Your task to perform on an android device: Open Google Chrome and open the bookmarks view Image 0: 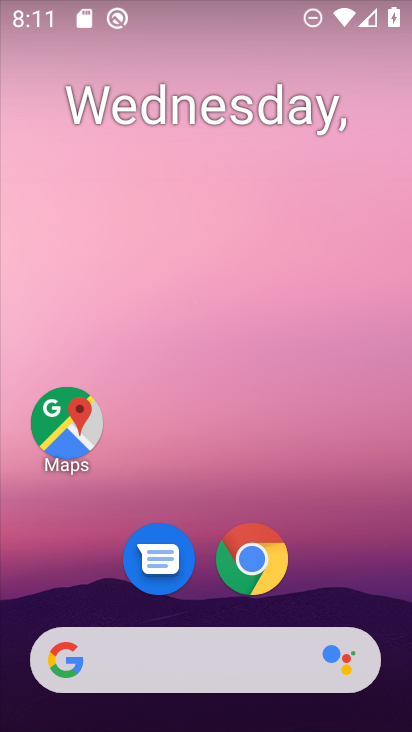
Step 0: click (243, 585)
Your task to perform on an android device: Open Google Chrome and open the bookmarks view Image 1: 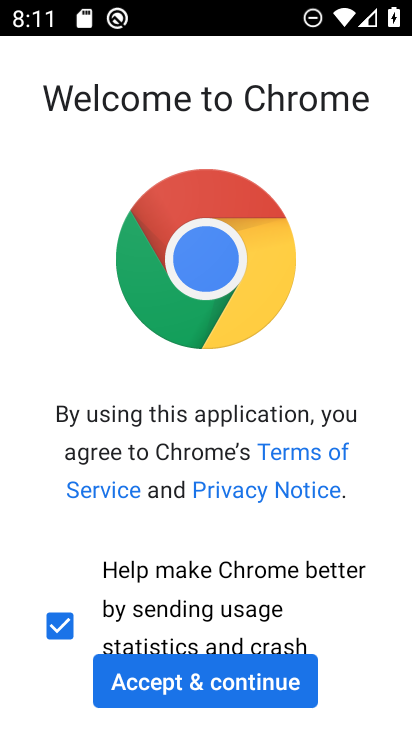
Step 1: click (254, 673)
Your task to perform on an android device: Open Google Chrome and open the bookmarks view Image 2: 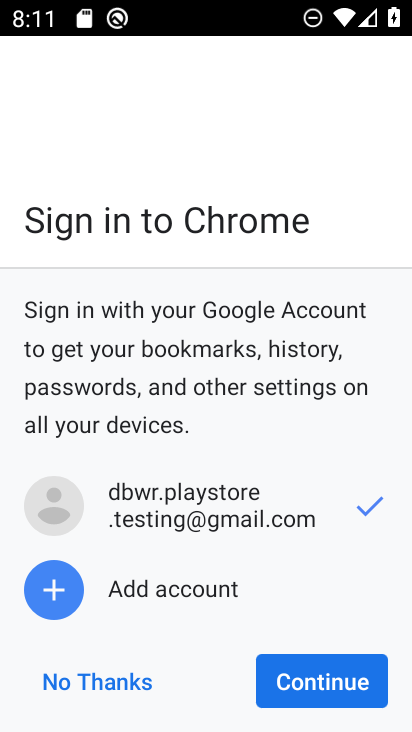
Step 2: click (322, 689)
Your task to perform on an android device: Open Google Chrome and open the bookmarks view Image 3: 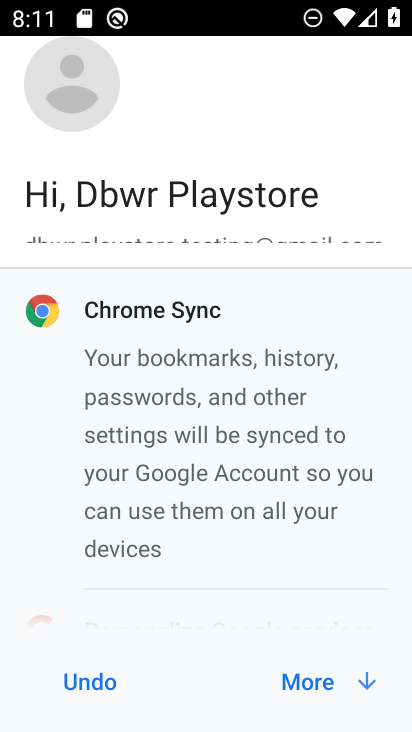
Step 3: click (328, 692)
Your task to perform on an android device: Open Google Chrome and open the bookmarks view Image 4: 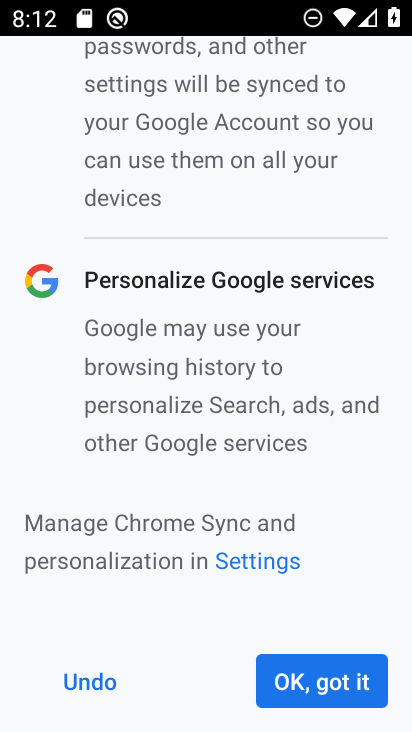
Step 4: click (328, 692)
Your task to perform on an android device: Open Google Chrome and open the bookmarks view Image 5: 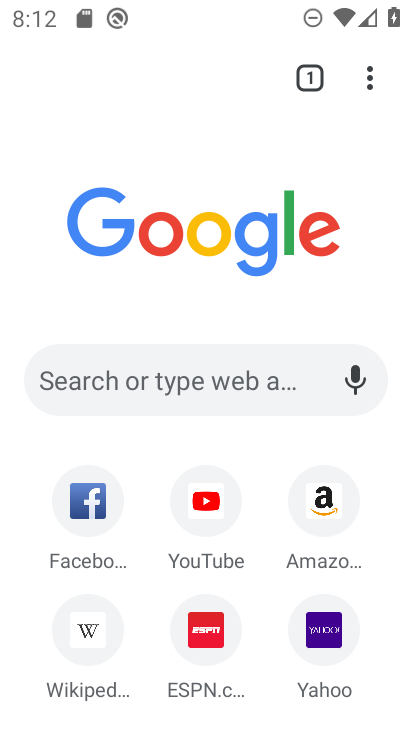
Step 5: click (385, 86)
Your task to perform on an android device: Open Google Chrome and open the bookmarks view Image 6: 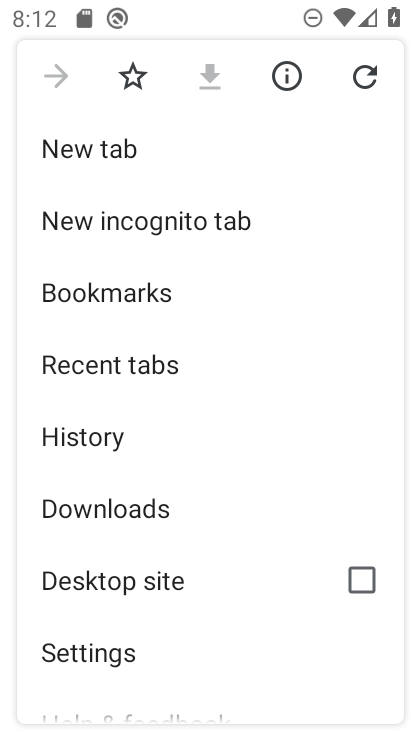
Step 6: click (155, 291)
Your task to perform on an android device: Open Google Chrome and open the bookmarks view Image 7: 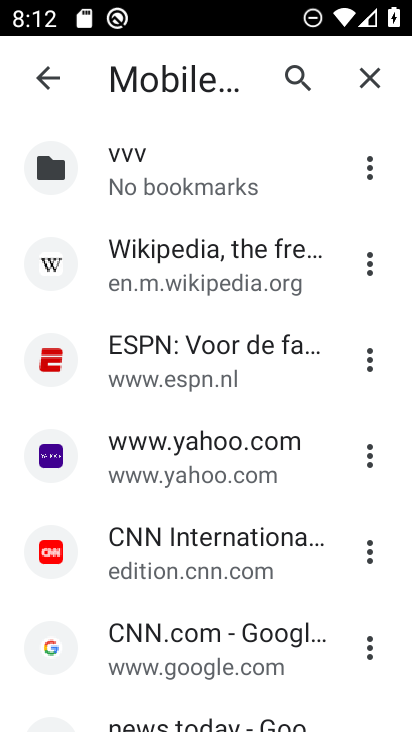
Step 7: task complete